Your task to perform on an android device: Show me popular games on the Play Store Image 0: 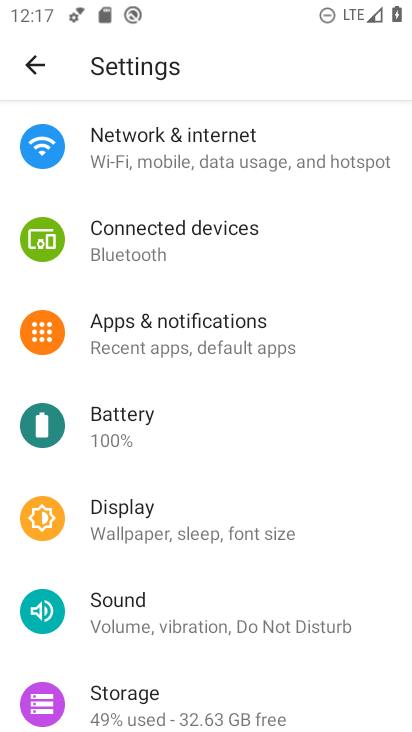
Step 0: press home button
Your task to perform on an android device: Show me popular games on the Play Store Image 1: 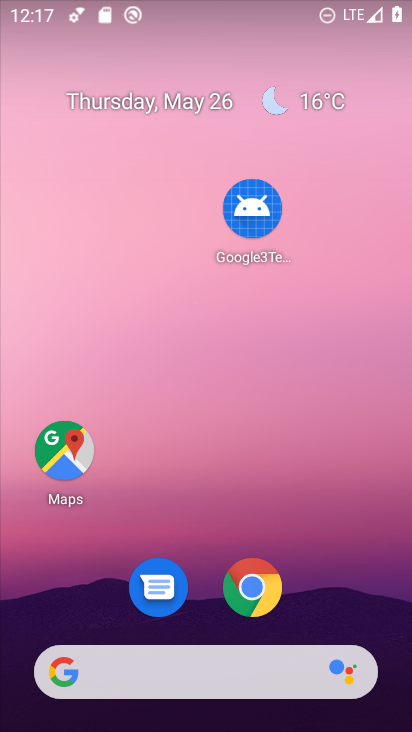
Step 1: drag from (180, 662) to (179, 21)
Your task to perform on an android device: Show me popular games on the Play Store Image 2: 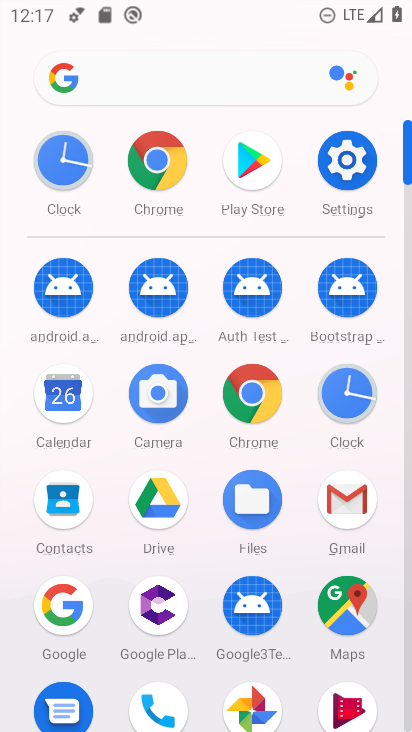
Step 2: click (253, 155)
Your task to perform on an android device: Show me popular games on the Play Store Image 3: 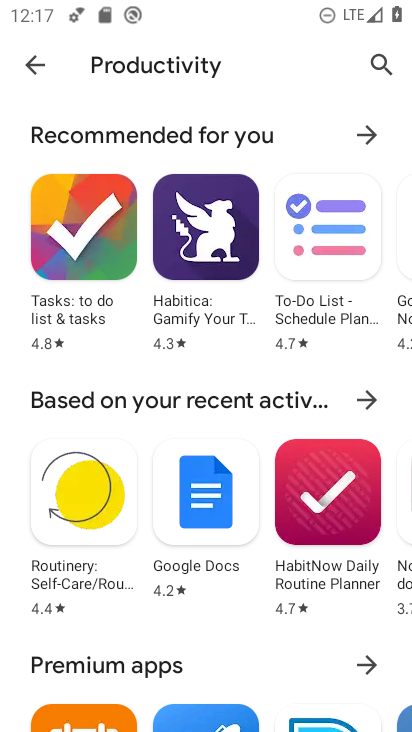
Step 3: click (30, 66)
Your task to perform on an android device: Show me popular games on the Play Store Image 4: 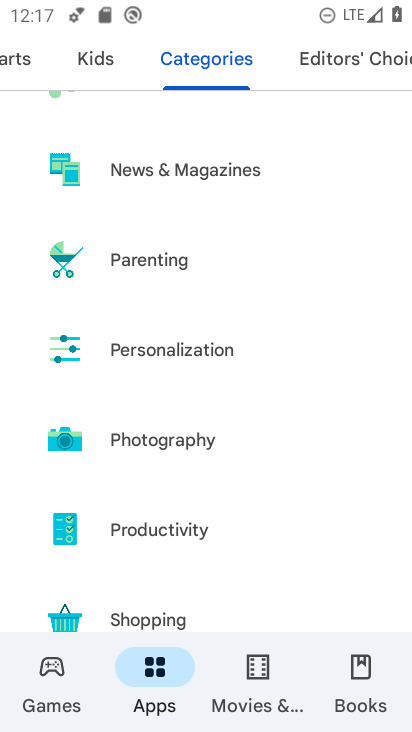
Step 4: drag from (81, 672) to (361, 669)
Your task to perform on an android device: Show me popular games on the Play Store Image 5: 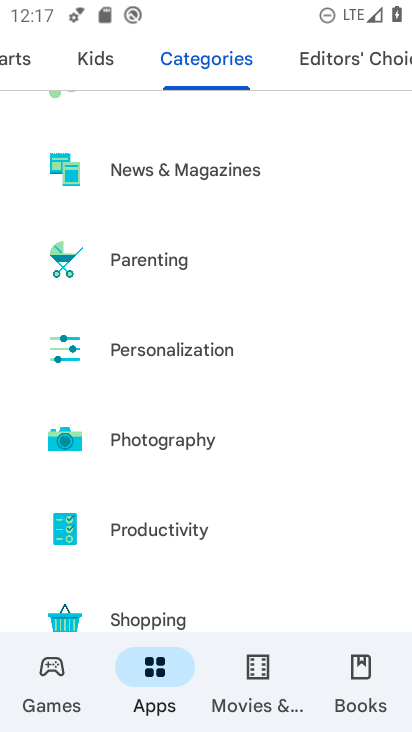
Step 5: click (35, 682)
Your task to perform on an android device: Show me popular games on the Play Store Image 6: 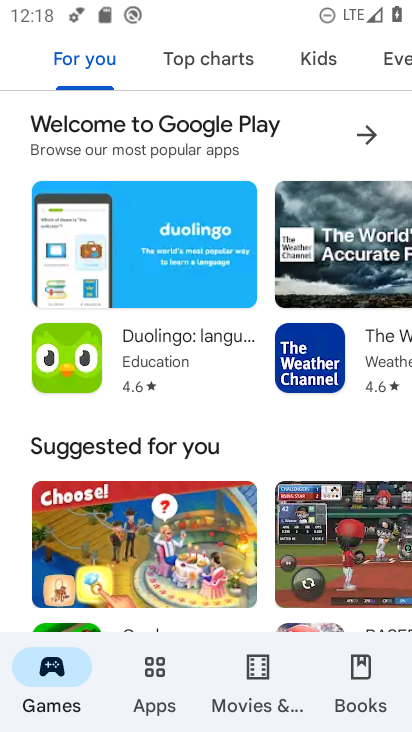
Step 6: drag from (248, 457) to (238, 134)
Your task to perform on an android device: Show me popular games on the Play Store Image 7: 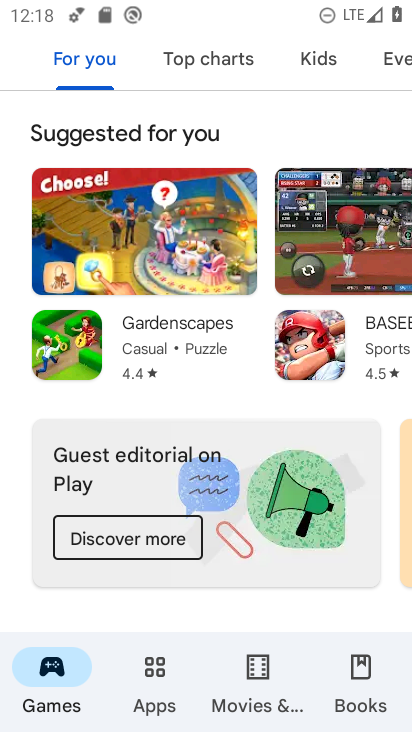
Step 7: drag from (263, 572) to (252, 1)
Your task to perform on an android device: Show me popular games on the Play Store Image 8: 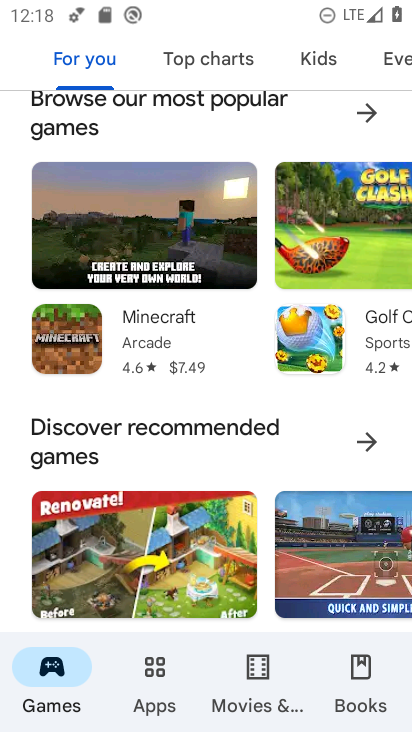
Step 8: click (350, 103)
Your task to perform on an android device: Show me popular games on the Play Store Image 9: 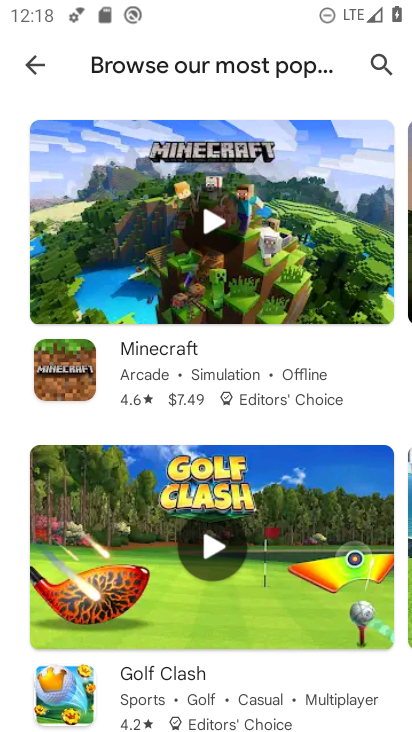
Step 9: task complete